Your task to perform on an android device: snooze an email in the gmail app Image 0: 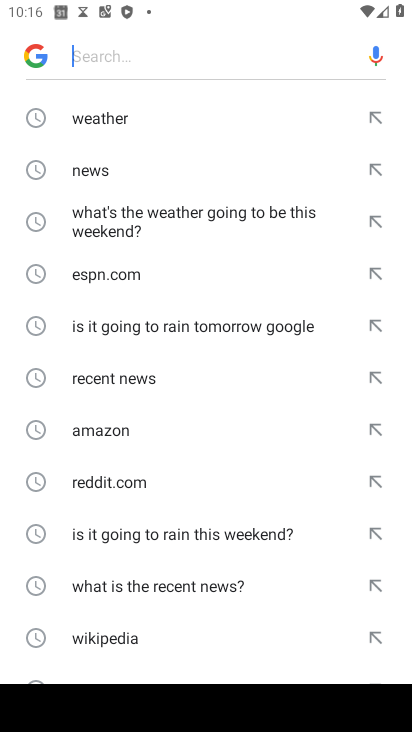
Step 0: press home button
Your task to perform on an android device: snooze an email in the gmail app Image 1: 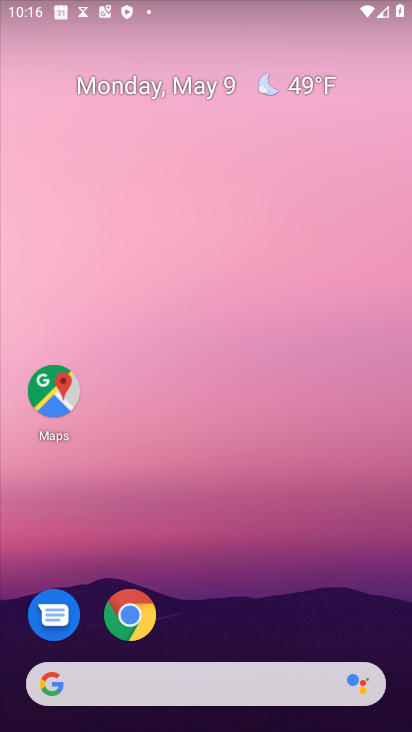
Step 1: drag from (207, 543) to (211, 137)
Your task to perform on an android device: snooze an email in the gmail app Image 2: 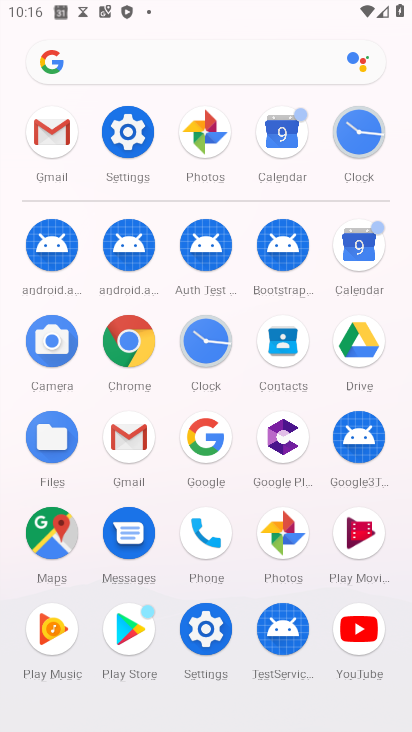
Step 2: click (123, 453)
Your task to perform on an android device: snooze an email in the gmail app Image 3: 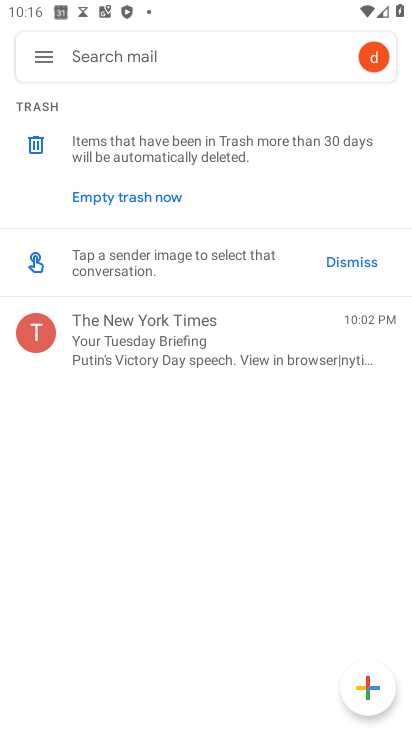
Step 3: click (45, 57)
Your task to perform on an android device: snooze an email in the gmail app Image 4: 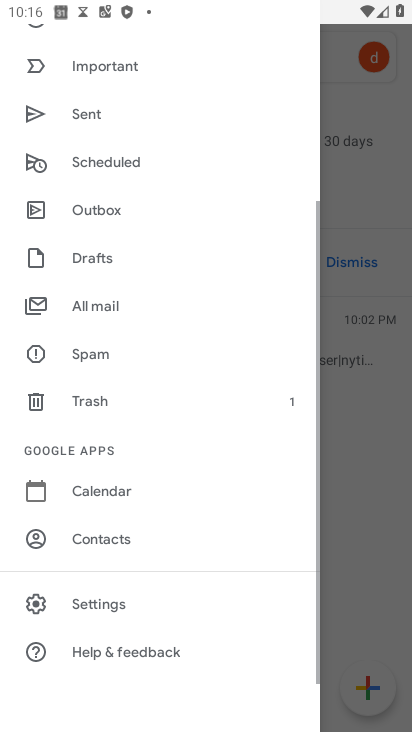
Step 4: drag from (156, 180) to (222, 602)
Your task to perform on an android device: snooze an email in the gmail app Image 5: 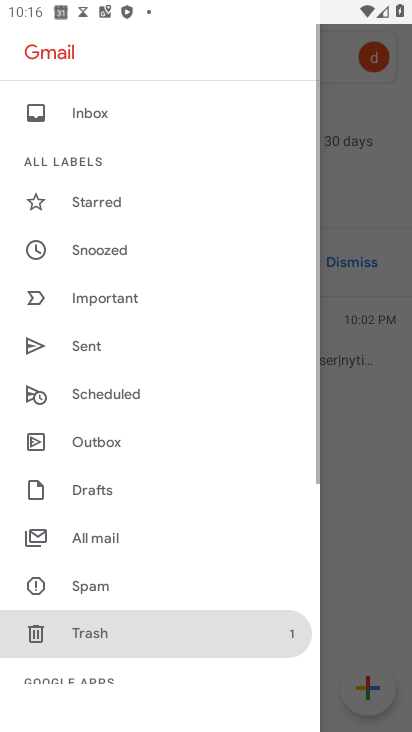
Step 5: click (109, 113)
Your task to perform on an android device: snooze an email in the gmail app Image 6: 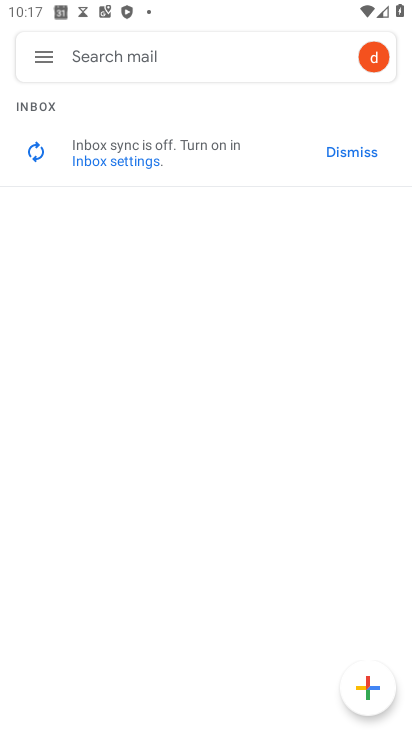
Step 6: task complete